Your task to perform on an android device: What's the weather going to be this weekend? Image 0: 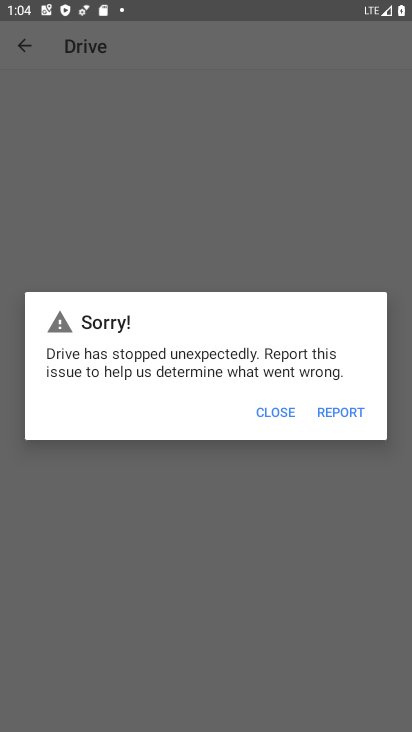
Step 0: press home button
Your task to perform on an android device: What's the weather going to be this weekend? Image 1: 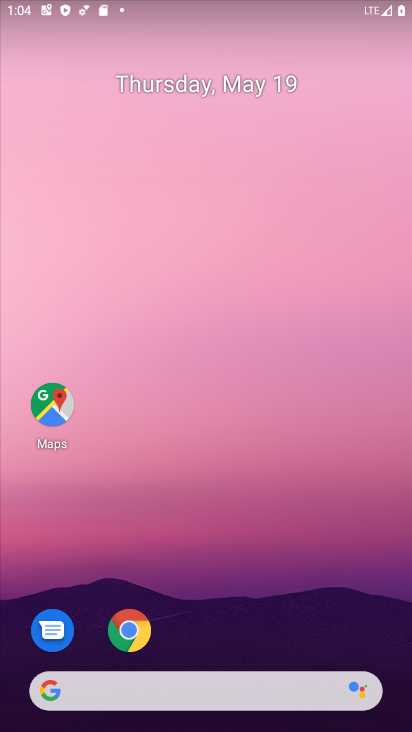
Step 1: drag from (215, 668) to (145, 52)
Your task to perform on an android device: What's the weather going to be this weekend? Image 2: 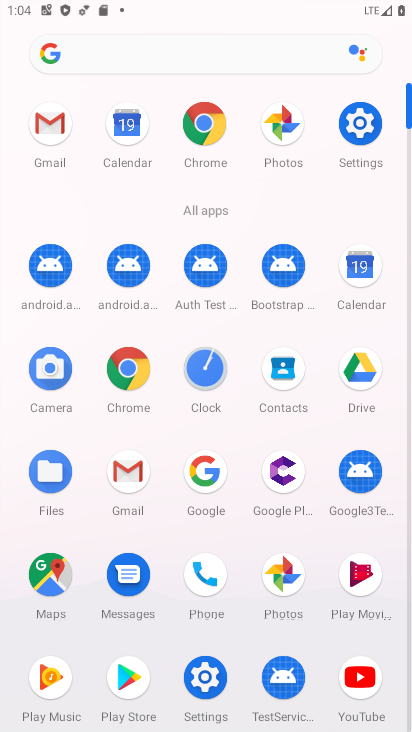
Step 2: click (211, 479)
Your task to perform on an android device: What's the weather going to be this weekend? Image 3: 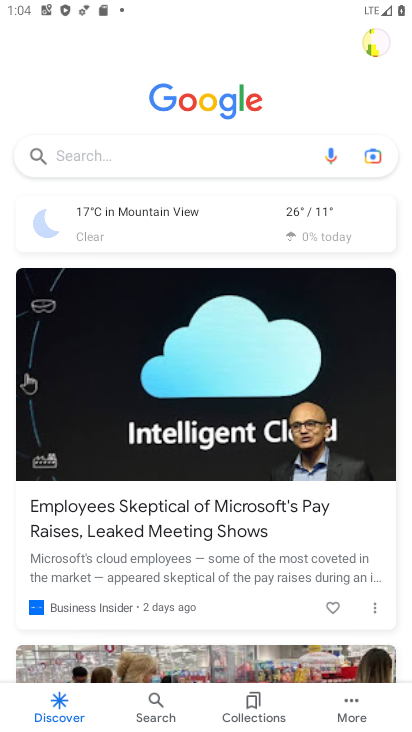
Step 3: click (176, 197)
Your task to perform on an android device: What's the weather going to be this weekend? Image 4: 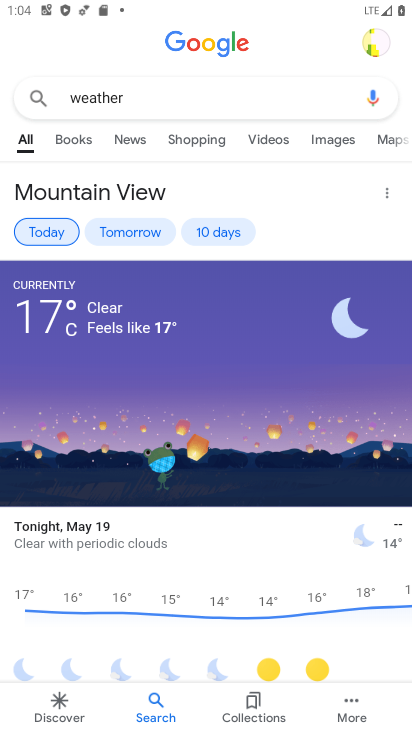
Step 4: click (199, 230)
Your task to perform on an android device: What's the weather going to be this weekend? Image 5: 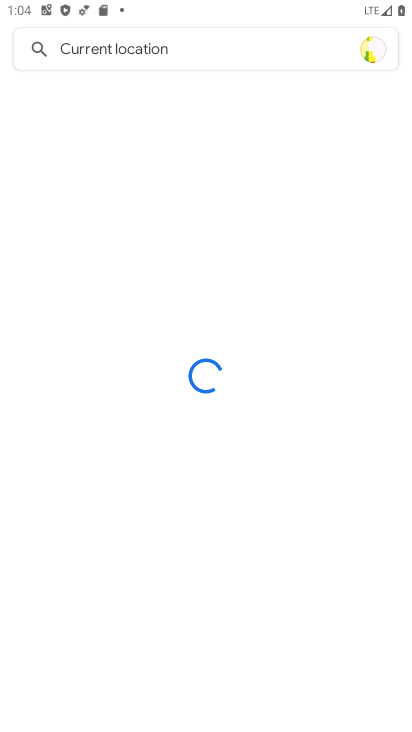
Step 5: click (212, 252)
Your task to perform on an android device: What's the weather going to be this weekend? Image 6: 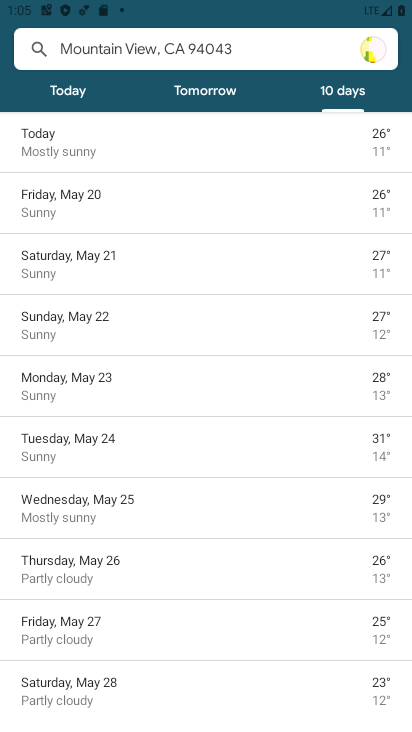
Step 6: task complete